Your task to perform on an android device: Open network settings Image 0: 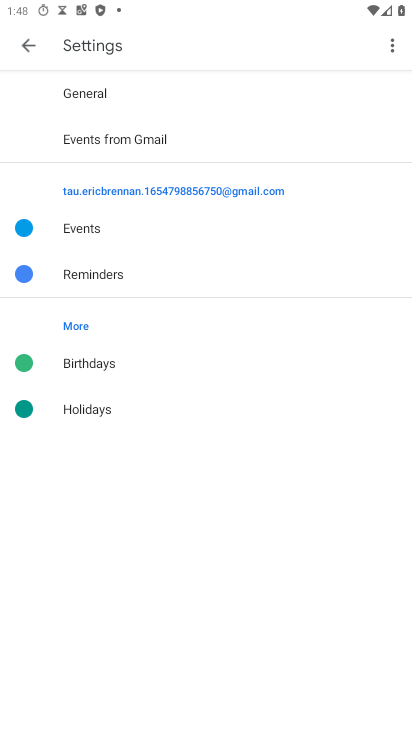
Step 0: press home button
Your task to perform on an android device: Open network settings Image 1: 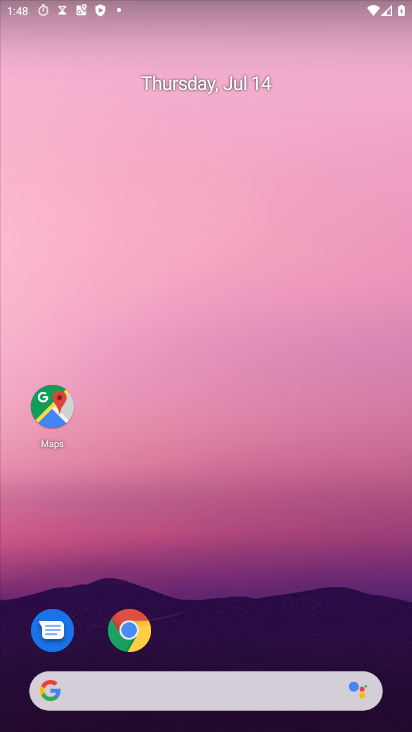
Step 1: drag from (216, 677) to (218, 42)
Your task to perform on an android device: Open network settings Image 2: 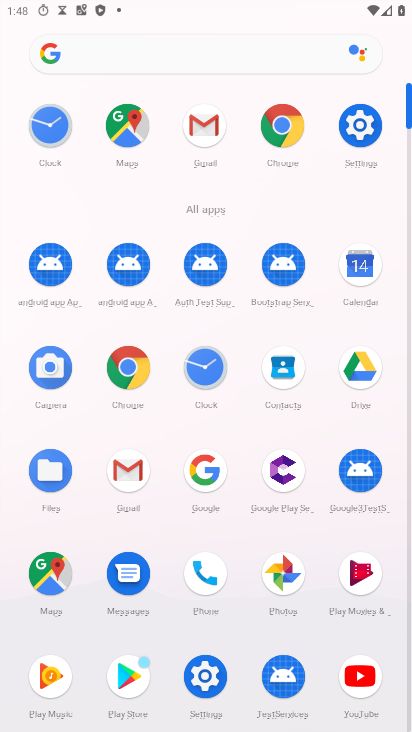
Step 2: click (362, 130)
Your task to perform on an android device: Open network settings Image 3: 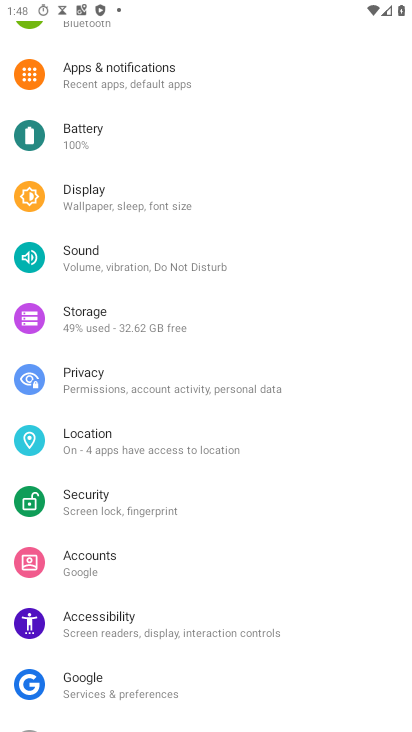
Step 3: drag from (146, 107) to (173, 493)
Your task to perform on an android device: Open network settings Image 4: 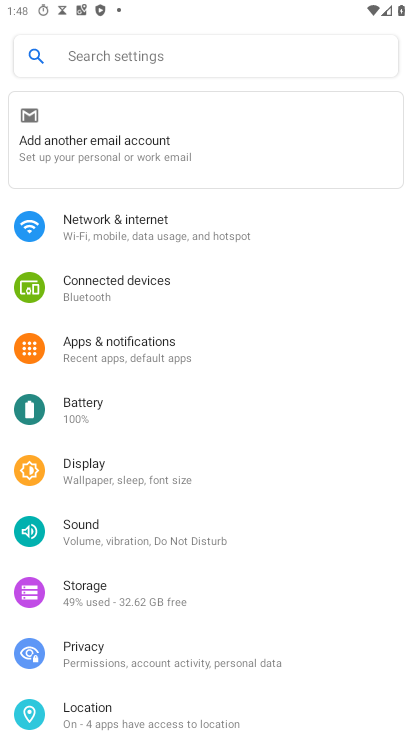
Step 4: click (178, 225)
Your task to perform on an android device: Open network settings Image 5: 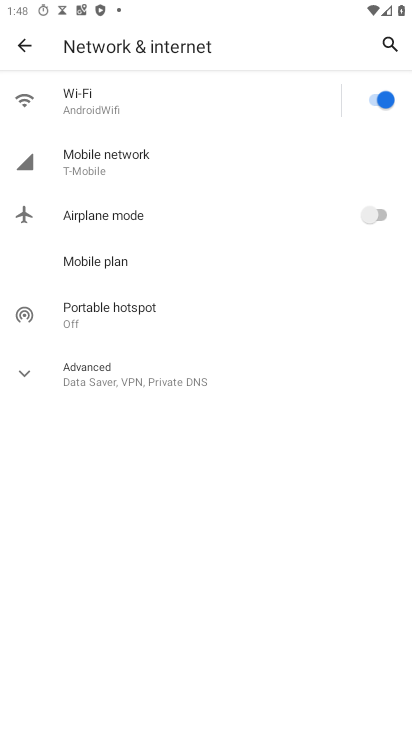
Step 5: task complete